Your task to perform on an android device: Set the phone to "Do not disturb". Image 0: 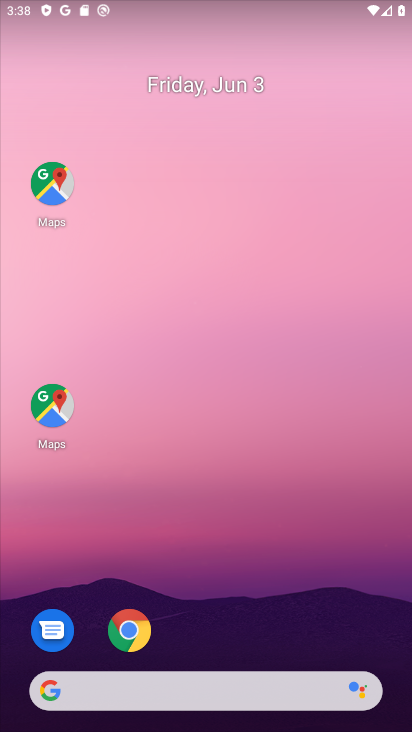
Step 0: drag from (257, 716) to (152, 25)
Your task to perform on an android device: Set the phone to "Do not disturb". Image 1: 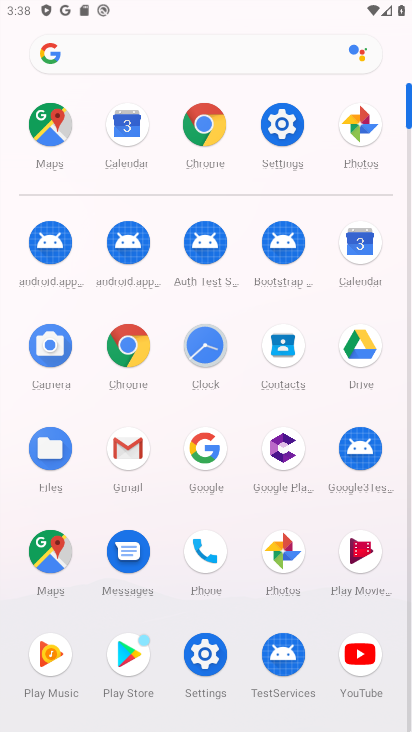
Step 1: click (297, 136)
Your task to perform on an android device: Set the phone to "Do not disturb". Image 2: 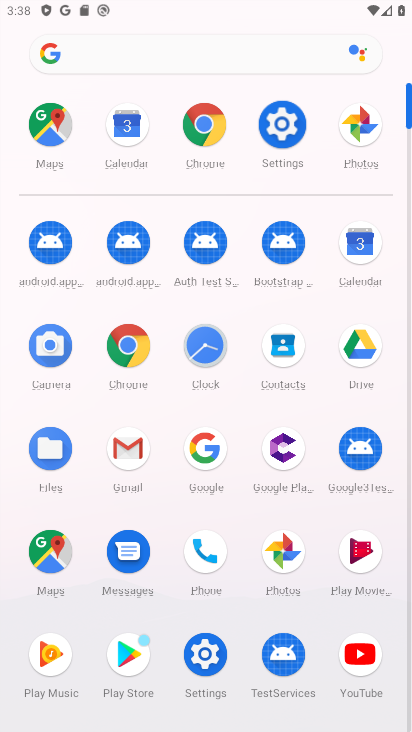
Step 2: click (291, 132)
Your task to perform on an android device: Set the phone to "Do not disturb". Image 3: 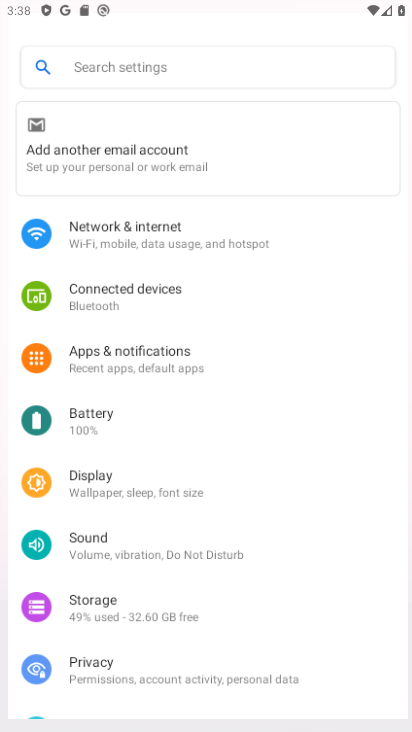
Step 3: click (289, 129)
Your task to perform on an android device: Set the phone to "Do not disturb". Image 4: 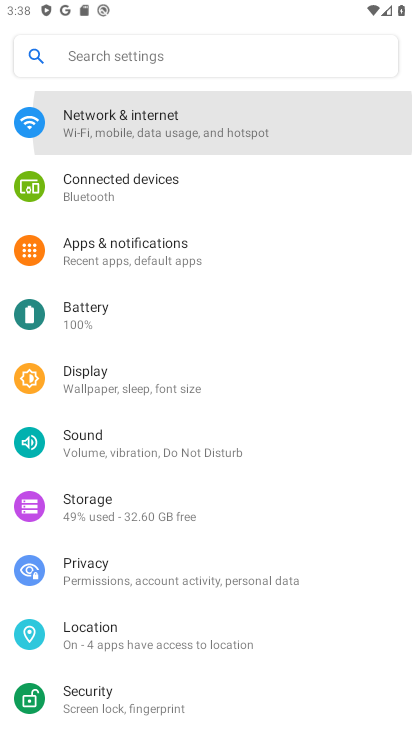
Step 4: click (284, 132)
Your task to perform on an android device: Set the phone to "Do not disturb". Image 5: 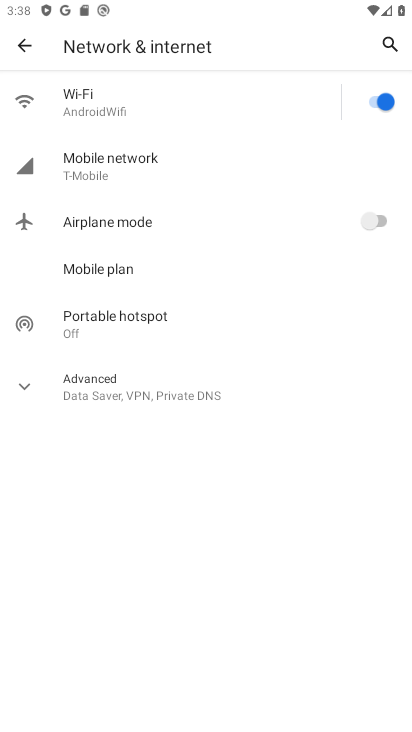
Step 5: click (29, 49)
Your task to perform on an android device: Set the phone to "Do not disturb". Image 6: 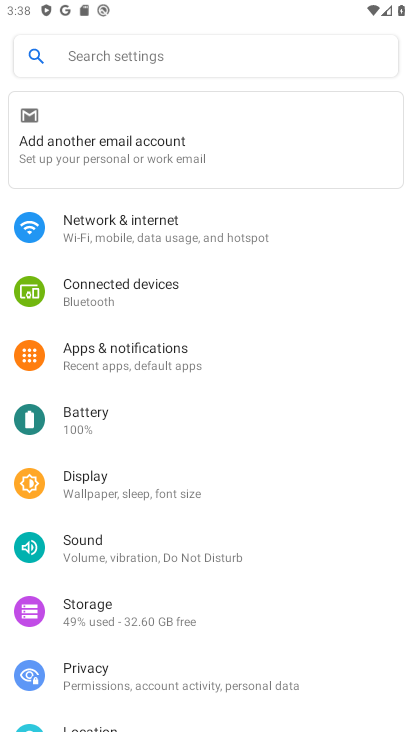
Step 6: drag from (192, 531) to (184, 128)
Your task to perform on an android device: Set the phone to "Do not disturb". Image 7: 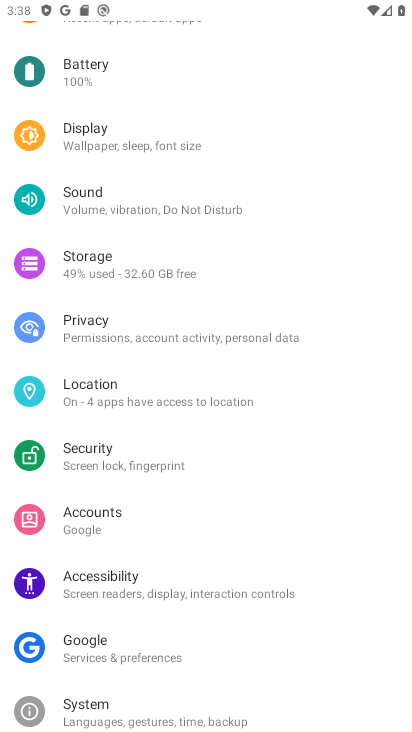
Step 7: drag from (169, 447) to (187, 172)
Your task to perform on an android device: Set the phone to "Do not disturb". Image 8: 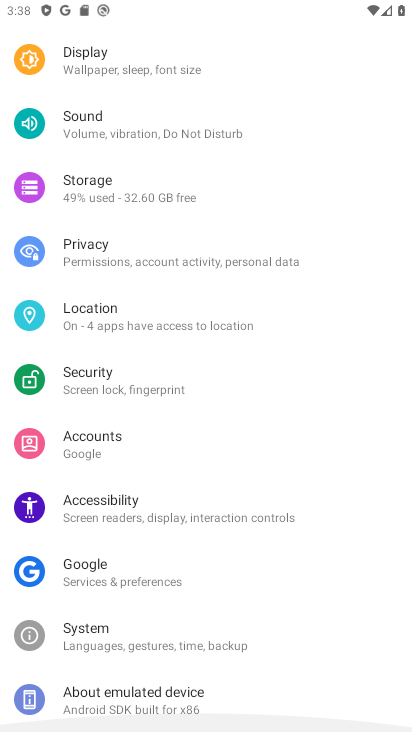
Step 8: drag from (187, 389) to (161, 173)
Your task to perform on an android device: Set the phone to "Do not disturb". Image 9: 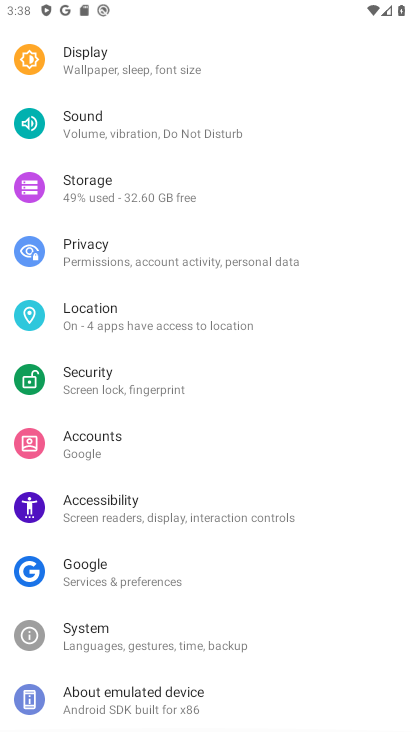
Step 9: drag from (190, 431) to (190, 133)
Your task to perform on an android device: Set the phone to "Do not disturb". Image 10: 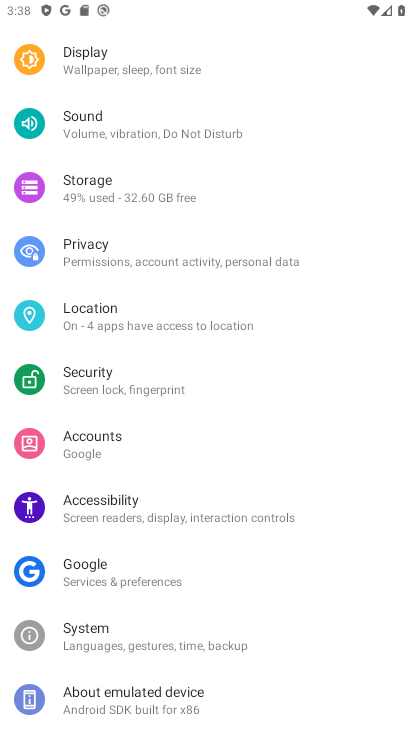
Step 10: click (104, 128)
Your task to perform on an android device: Set the phone to "Do not disturb". Image 11: 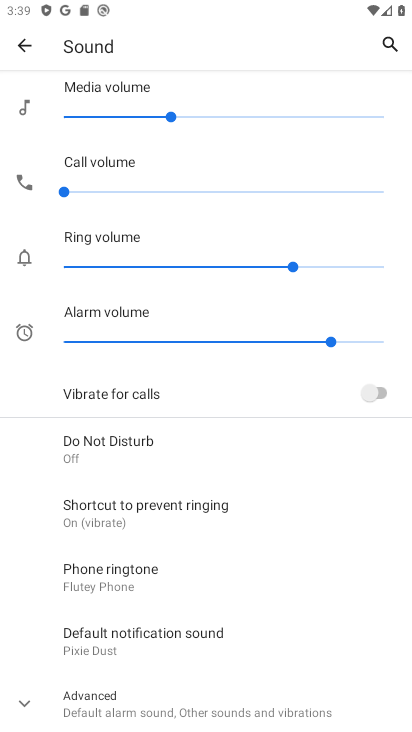
Step 11: click (98, 444)
Your task to perform on an android device: Set the phone to "Do not disturb". Image 12: 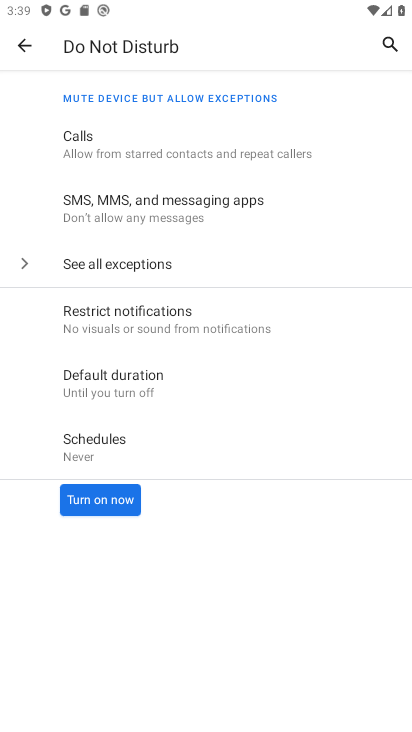
Step 12: click (108, 498)
Your task to perform on an android device: Set the phone to "Do not disturb". Image 13: 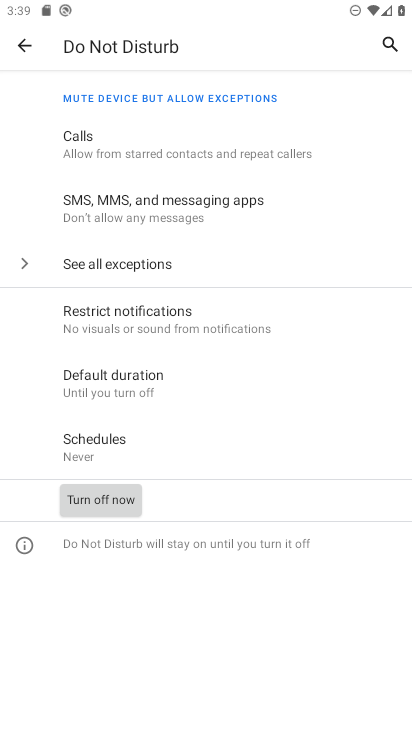
Step 13: task complete